Your task to perform on an android device: Show me the alarms in the clock app Image 0: 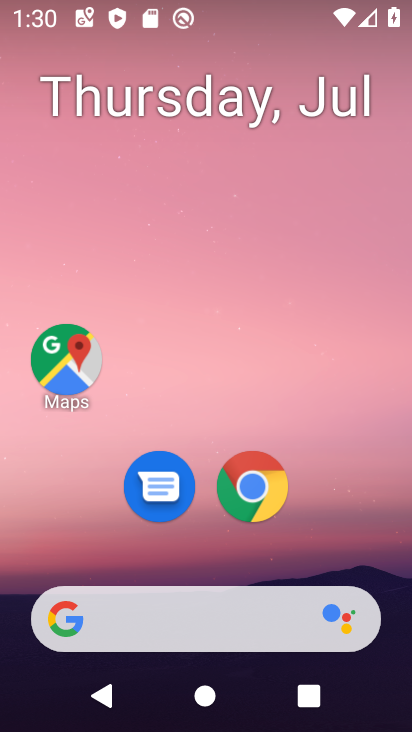
Step 0: drag from (189, 566) to (172, 23)
Your task to perform on an android device: Show me the alarms in the clock app Image 1: 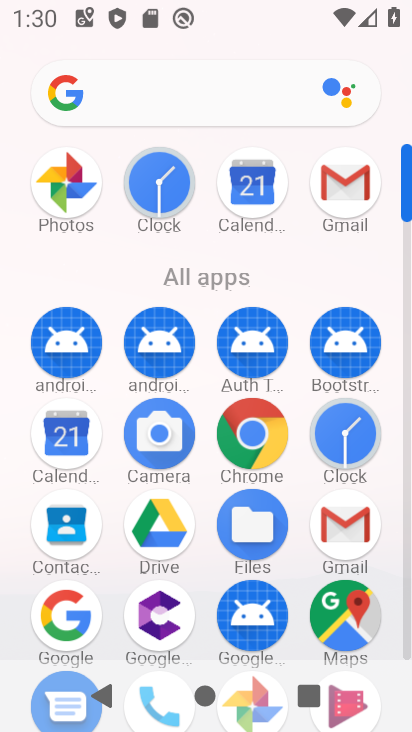
Step 1: click (173, 183)
Your task to perform on an android device: Show me the alarms in the clock app Image 2: 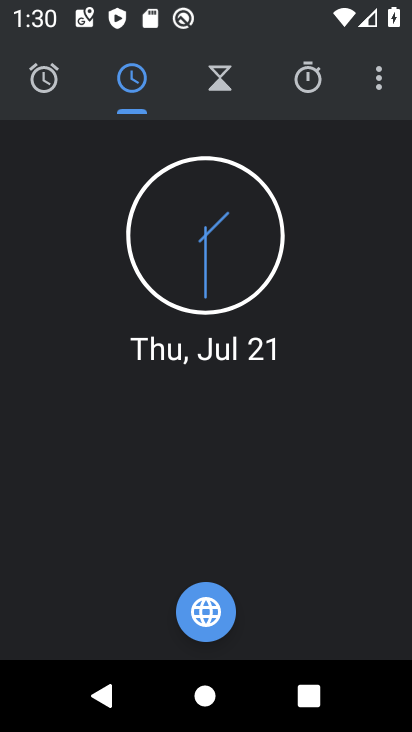
Step 2: click (380, 74)
Your task to perform on an android device: Show me the alarms in the clock app Image 3: 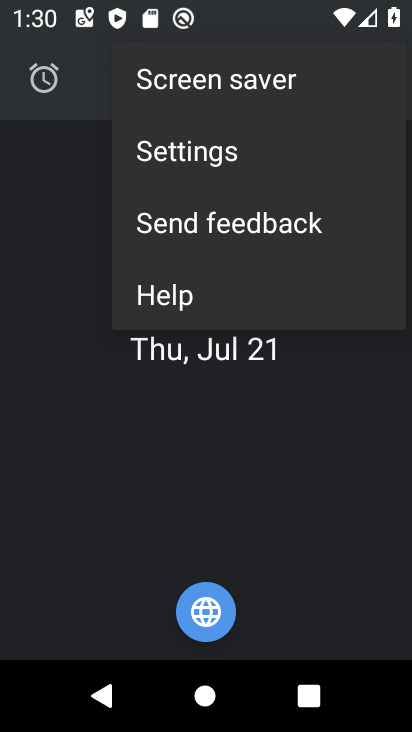
Step 3: click (63, 72)
Your task to perform on an android device: Show me the alarms in the clock app Image 4: 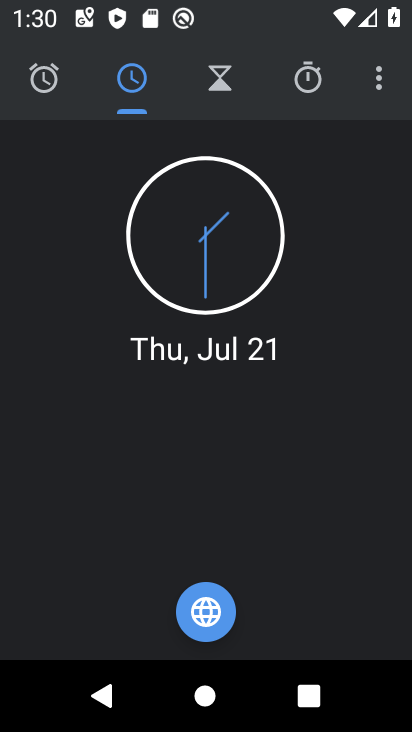
Step 4: click (49, 77)
Your task to perform on an android device: Show me the alarms in the clock app Image 5: 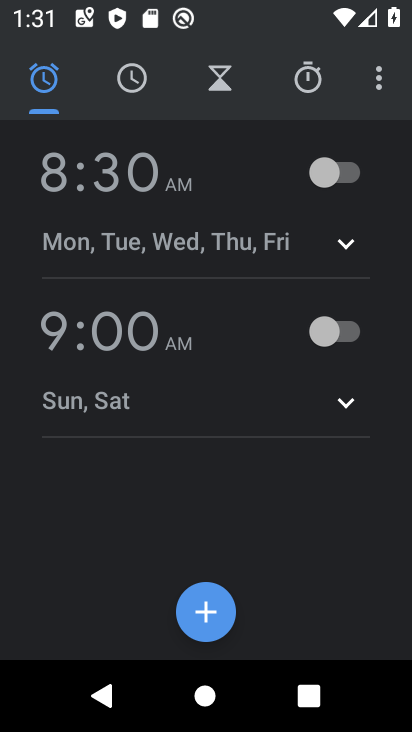
Step 5: task complete